Your task to perform on an android device: Check the news Image 0: 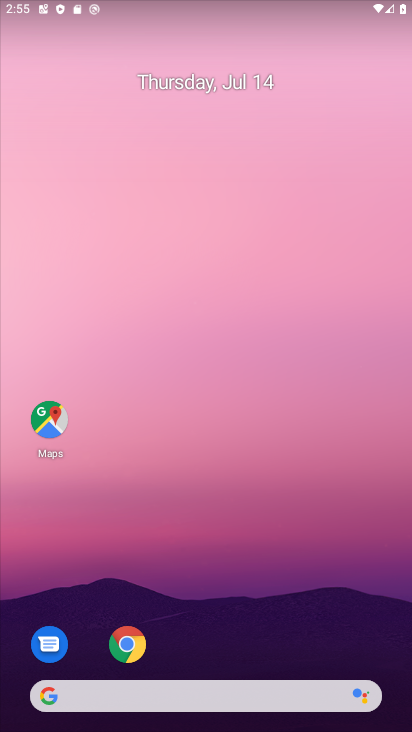
Step 0: drag from (179, 562) to (232, 168)
Your task to perform on an android device: Check the news Image 1: 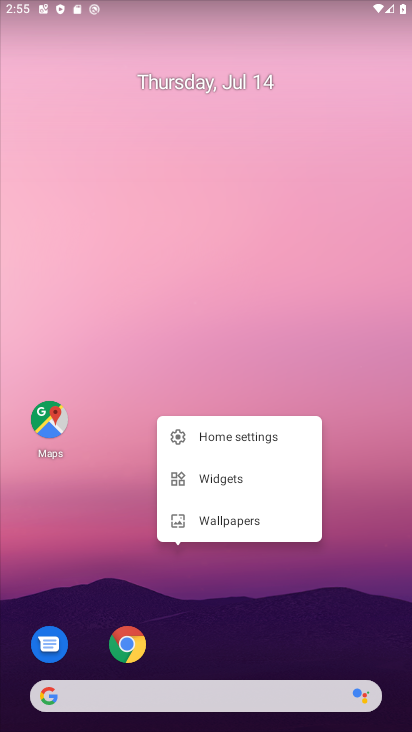
Step 1: drag from (193, 671) to (265, 192)
Your task to perform on an android device: Check the news Image 2: 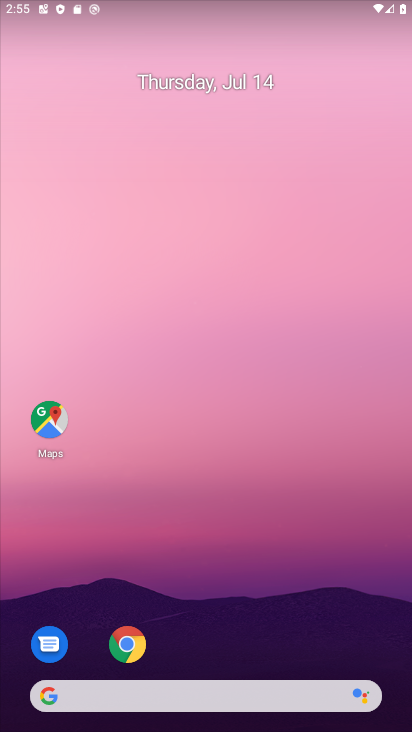
Step 2: drag from (200, 662) to (334, 5)
Your task to perform on an android device: Check the news Image 3: 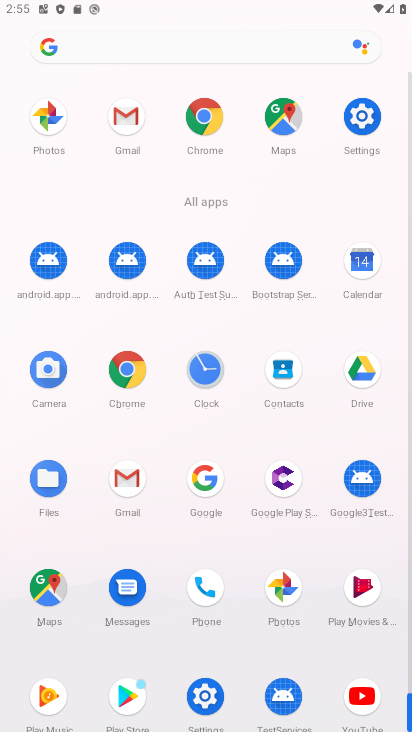
Step 3: click (124, 41)
Your task to perform on an android device: Check the news Image 4: 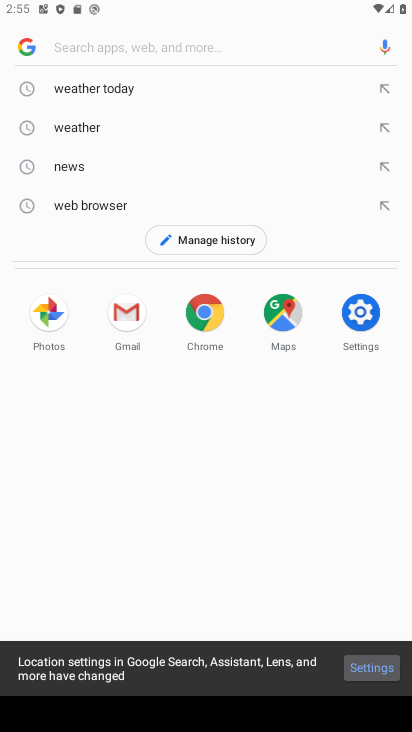
Step 4: type "news"
Your task to perform on an android device: Check the news Image 5: 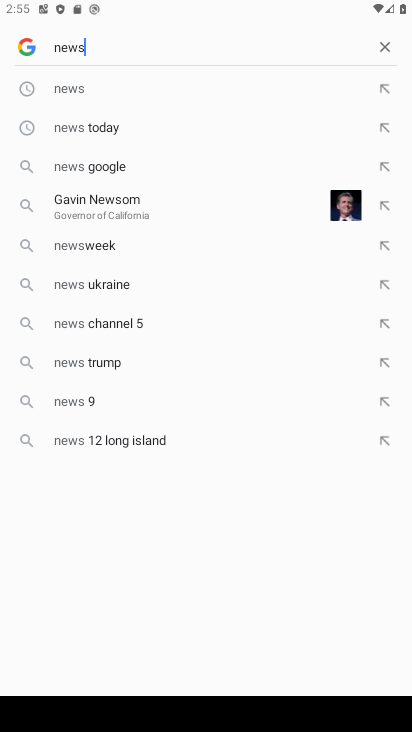
Step 5: click (114, 95)
Your task to perform on an android device: Check the news Image 6: 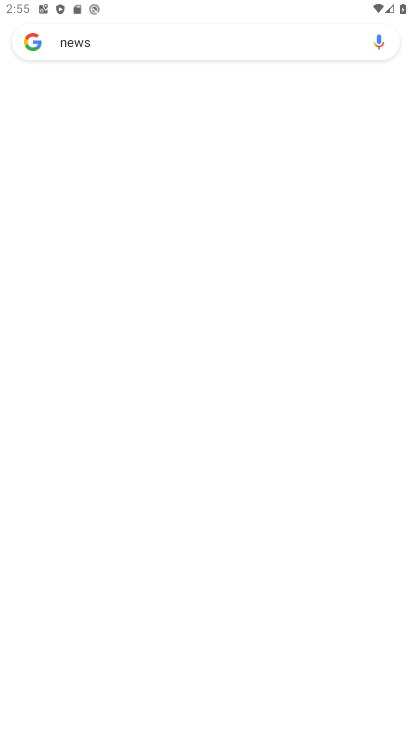
Step 6: task complete